Your task to perform on an android device: Open my contact list Image 0: 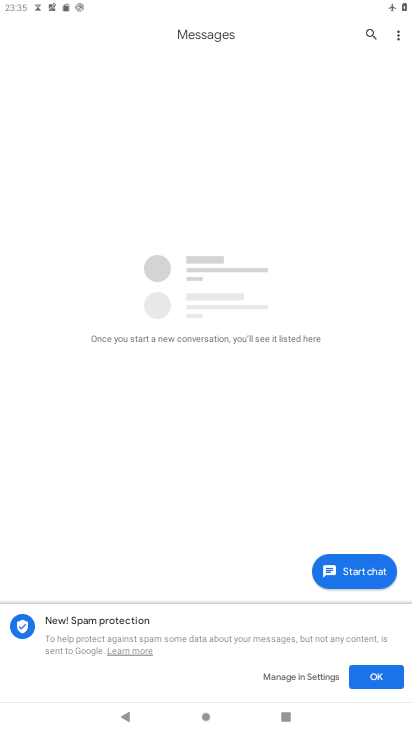
Step 0: press home button
Your task to perform on an android device: Open my contact list Image 1: 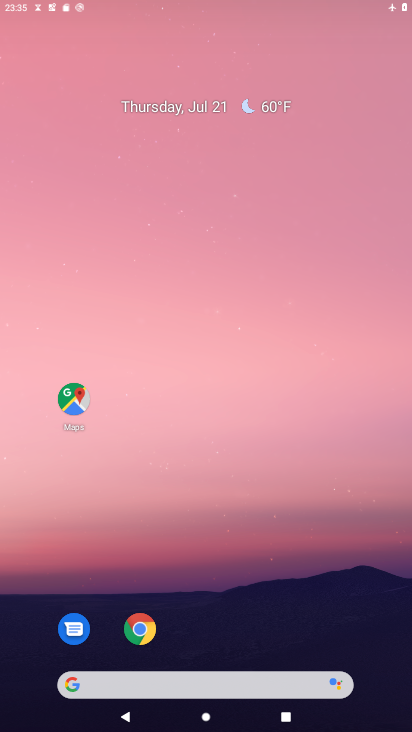
Step 1: drag from (231, 605) to (219, 278)
Your task to perform on an android device: Open my contact list Image 2: 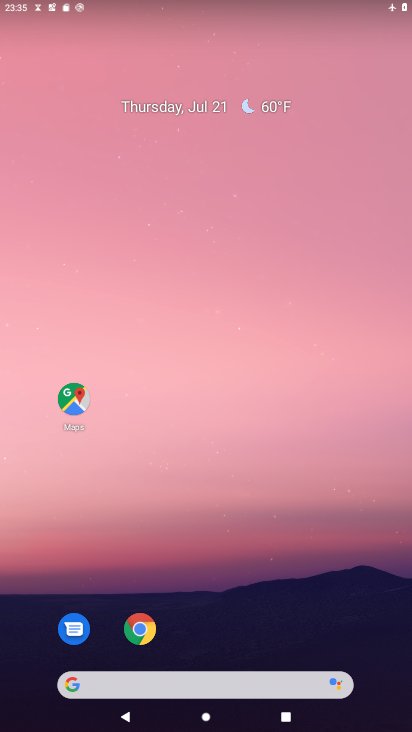
Step 2: drag from (240, 638) to (238, 220)
Your task to perform on an android device: Open my contact list Image 3: 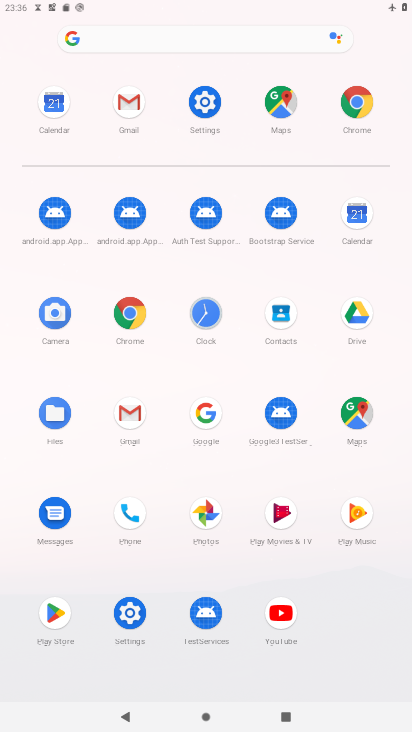
Step 3: click (285, 315)
Your task to perform on an android device: Open my contact list Image 4: 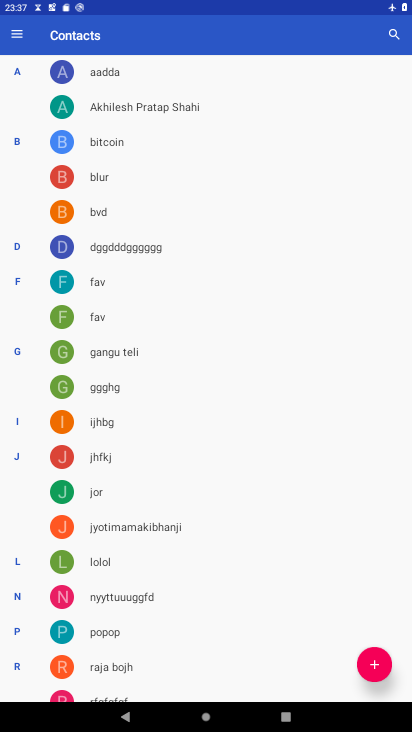
Step 4: task complete